Your task to perform on an android device: turn on bluetooth scan Image 0: 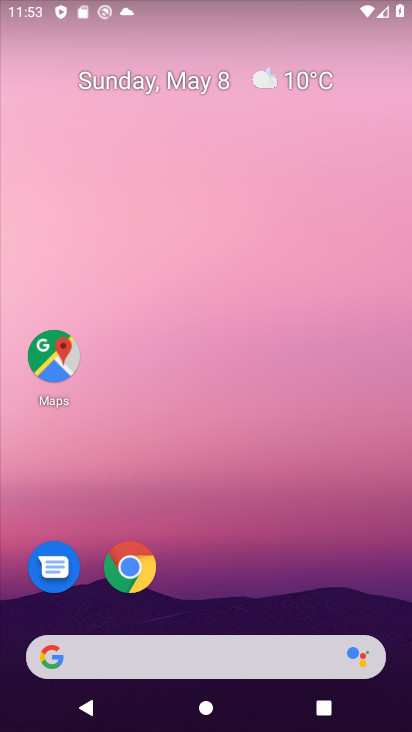
Step 0: drag from (210, 546) to (225, 208)
Your task to perform on an android device: turn on bluetooth scan Image 1: 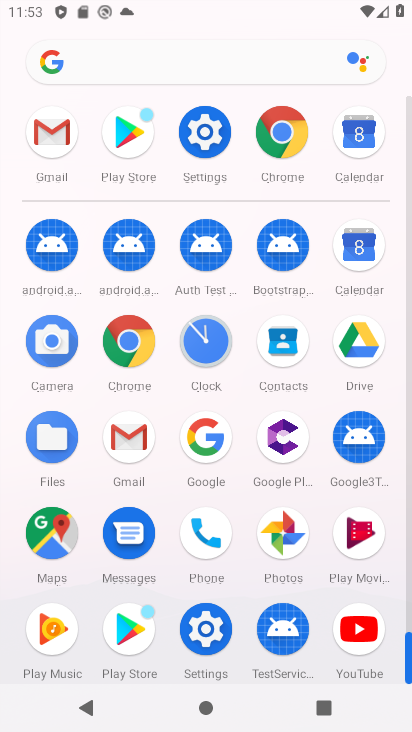
Step 1: click (215, 151)
Your task to perform on an android device: turn on bluetooth scan Image 2: 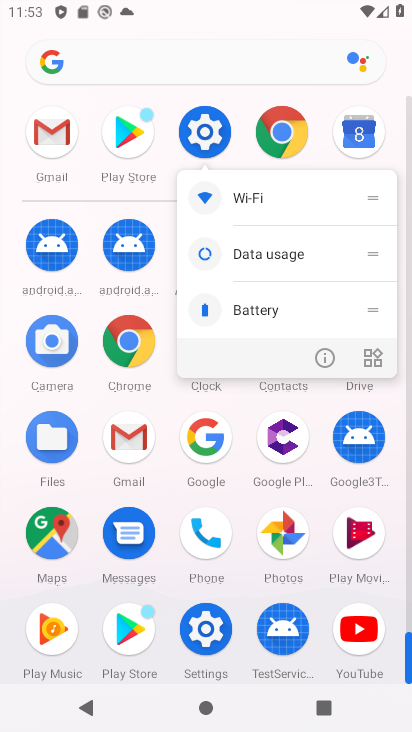
Step 2: click (215, 151)
Your task to perform on an android device: turn on bluetooth scan Image 3: 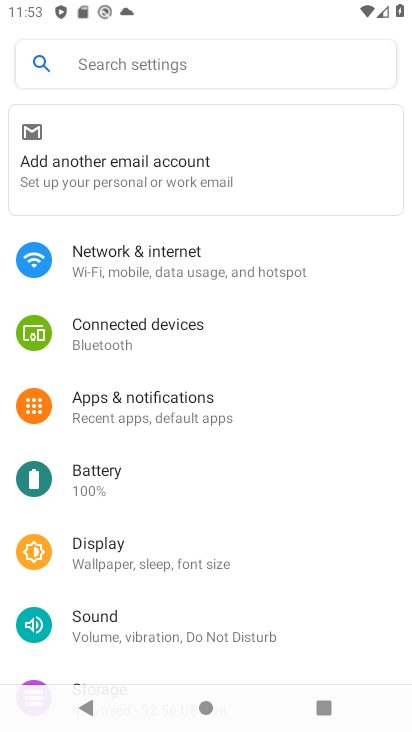
Step 3: click (189, 339)
Your task to perform on an android device: turn on bluetooth scan Image 4: 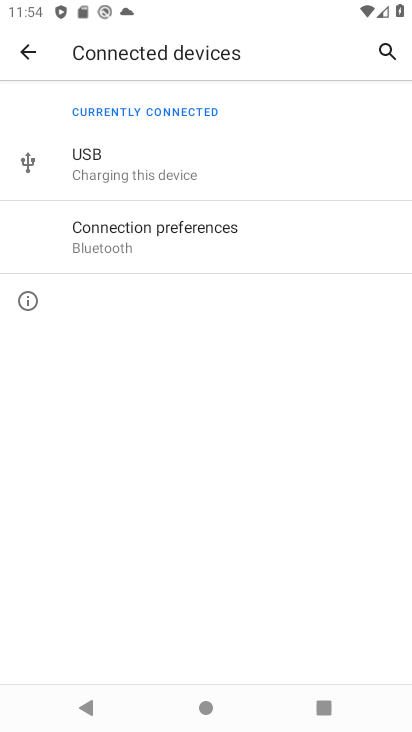
Step 4: click (249, 235)
Your task to perform on an android device: turn on bluetooth scan Image 5: 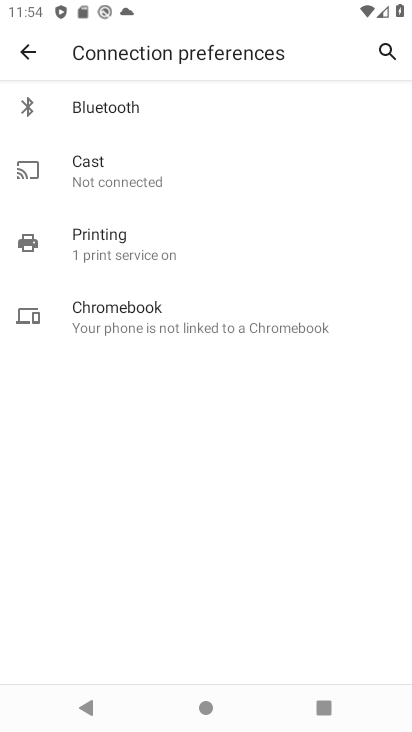
Step 5: click (261, 102)
Your task to perform on an android device: turn on bluetooth scan Image 6: 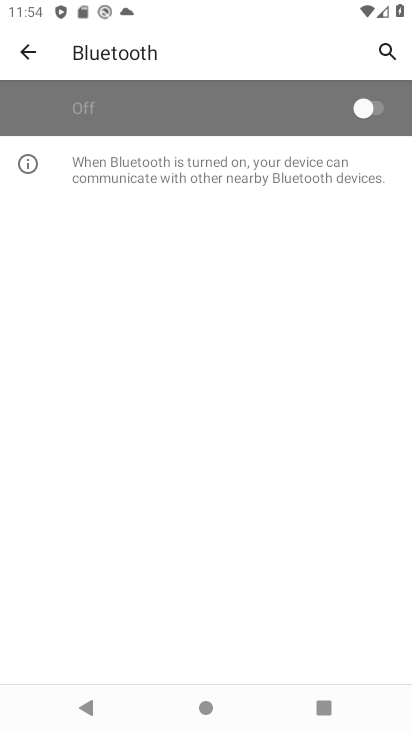
Step 6: click (372, 107)
Your task to perform on an android device: turn on bluetooth scan Image 7: 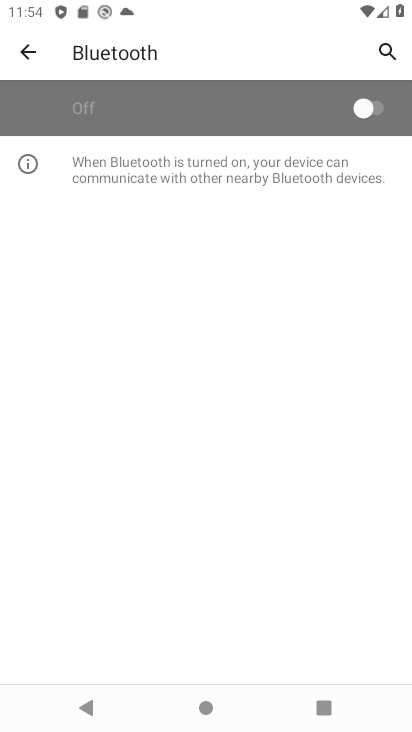
Step 7: task complete